Your task to perform on an android device: change the clock style Image 0: 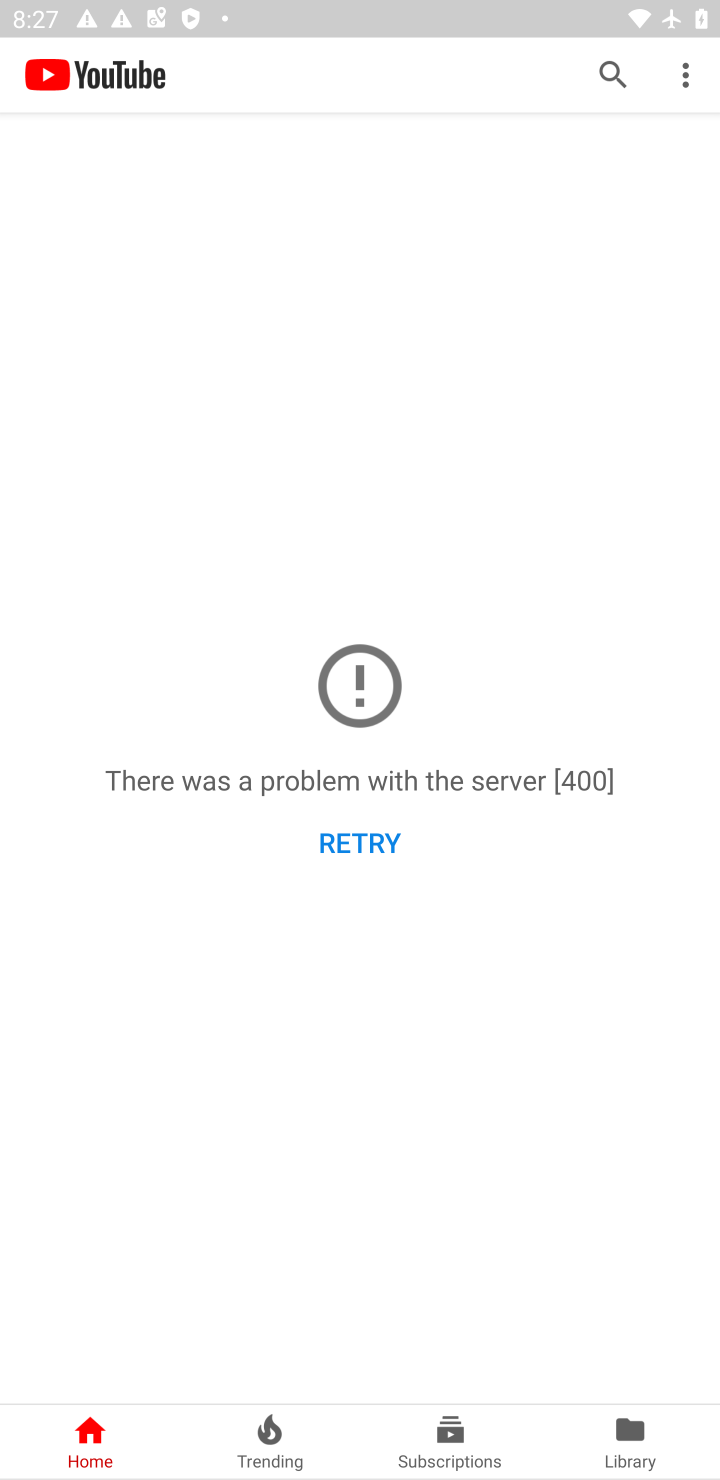
Step 0: press home button
Your task to perform on an android device: change the clock style Image 1: 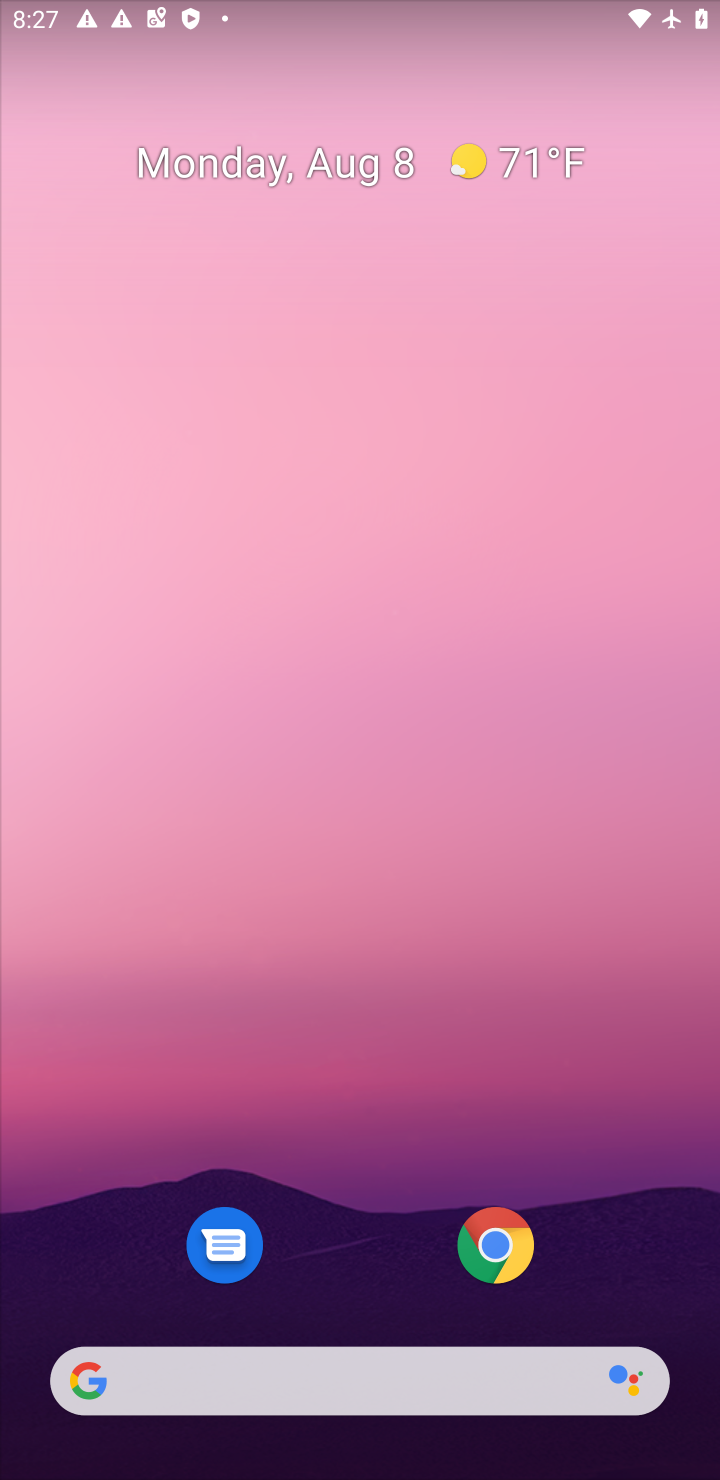
Step 1: drag from (378, 890) to (370, 5)
Your task to perform on an android device: change the clock style Image 2: 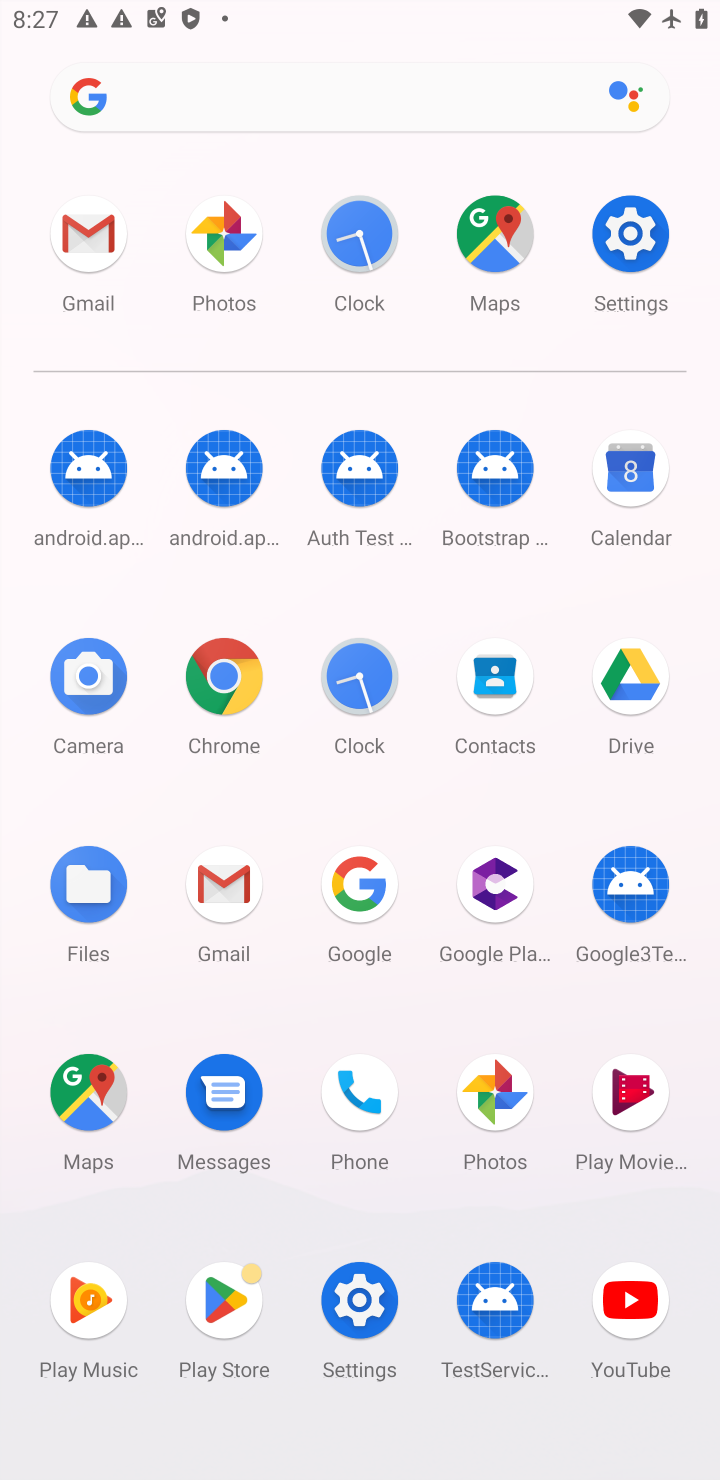
Step 2: click (368, 268)
Your task to perform on an android device: change the clock style Image 3: 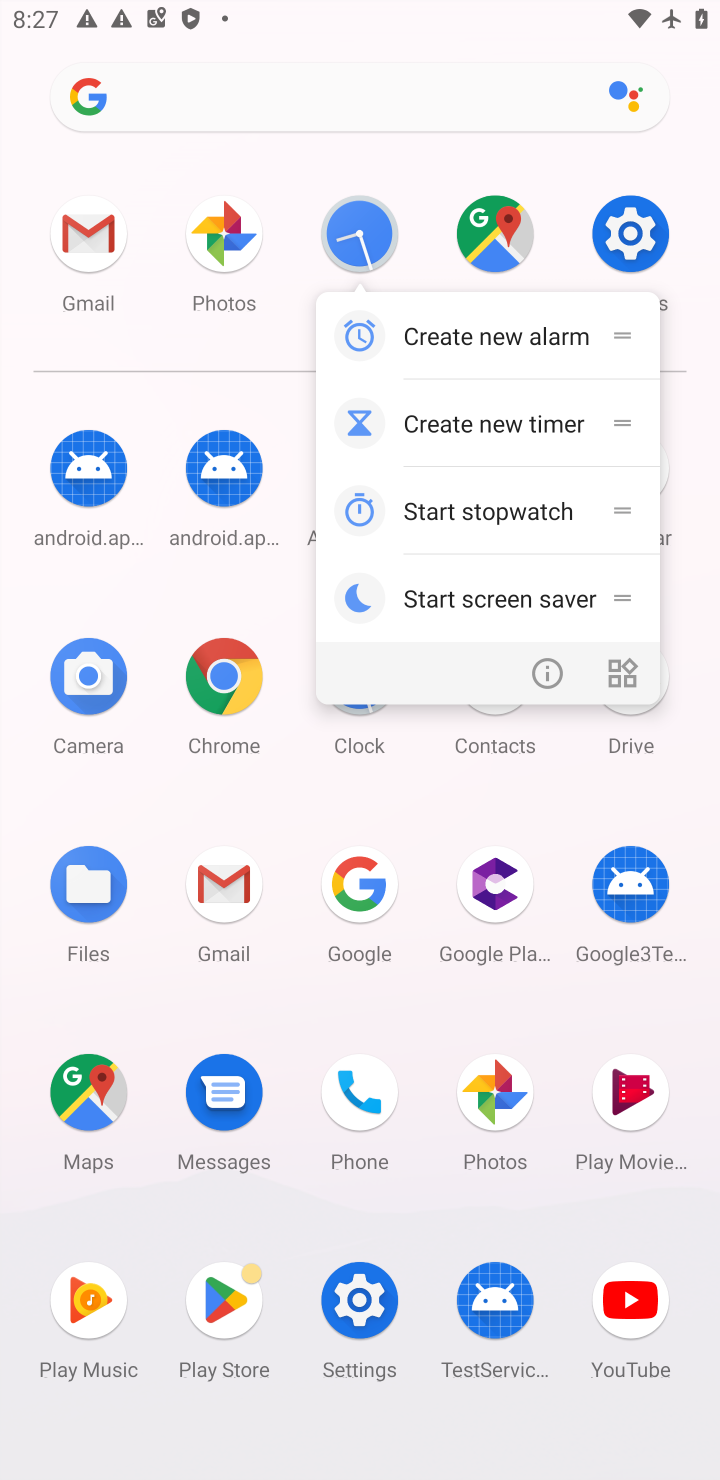
Step 3: click (370, 262)
Your task to perform on an android device: change the clock style Image 4: 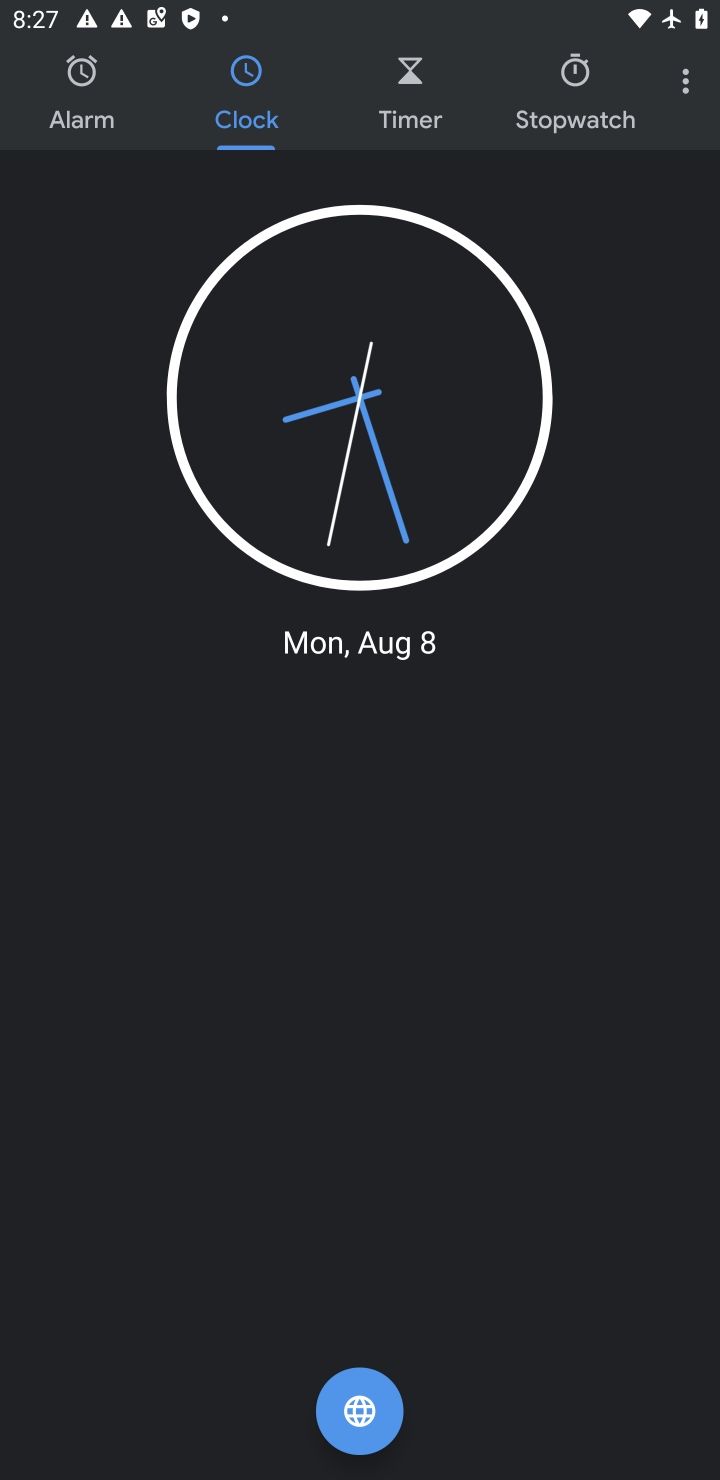
Step 4: click (679, 91)
Your task to perform on an android device: change the clock style Image 5: 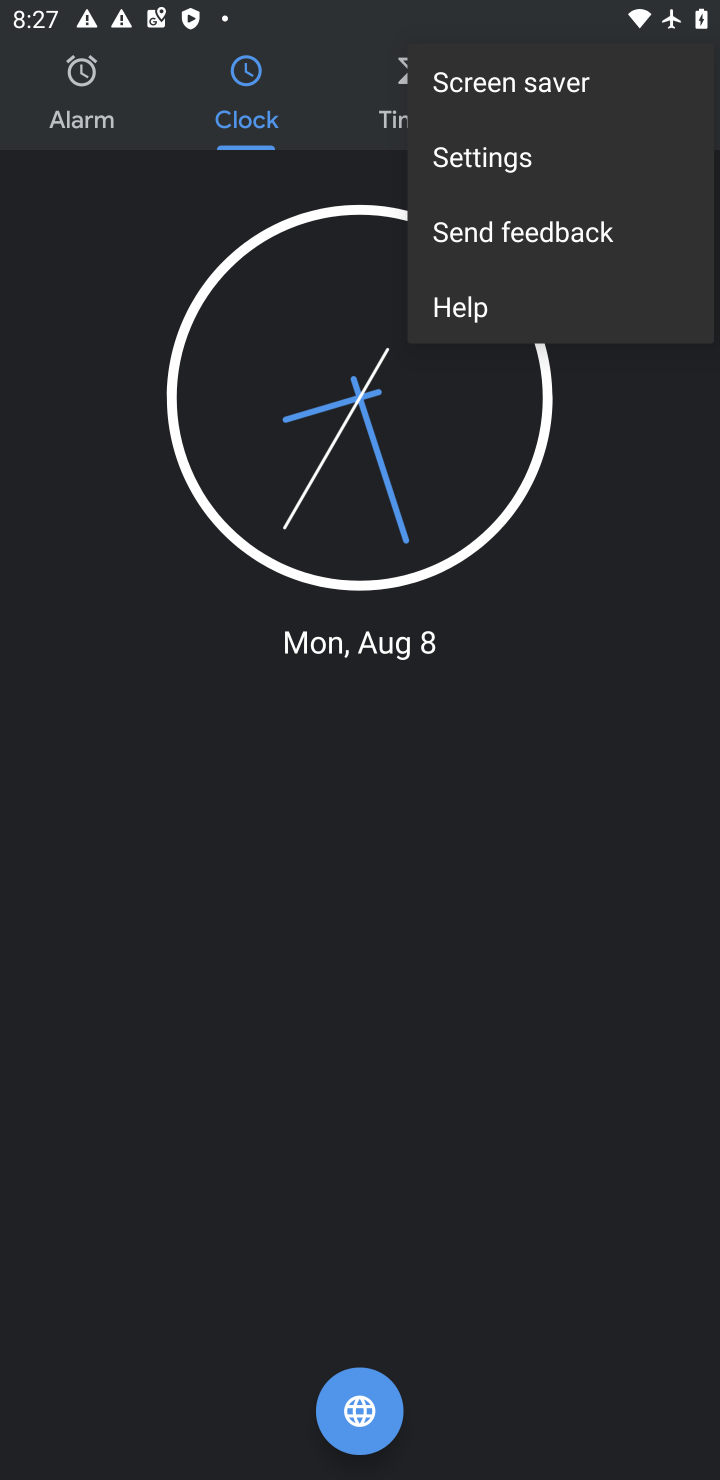
Step 5: click (516, 171)
Your task to perform on an android device: change the clock style Image 6: 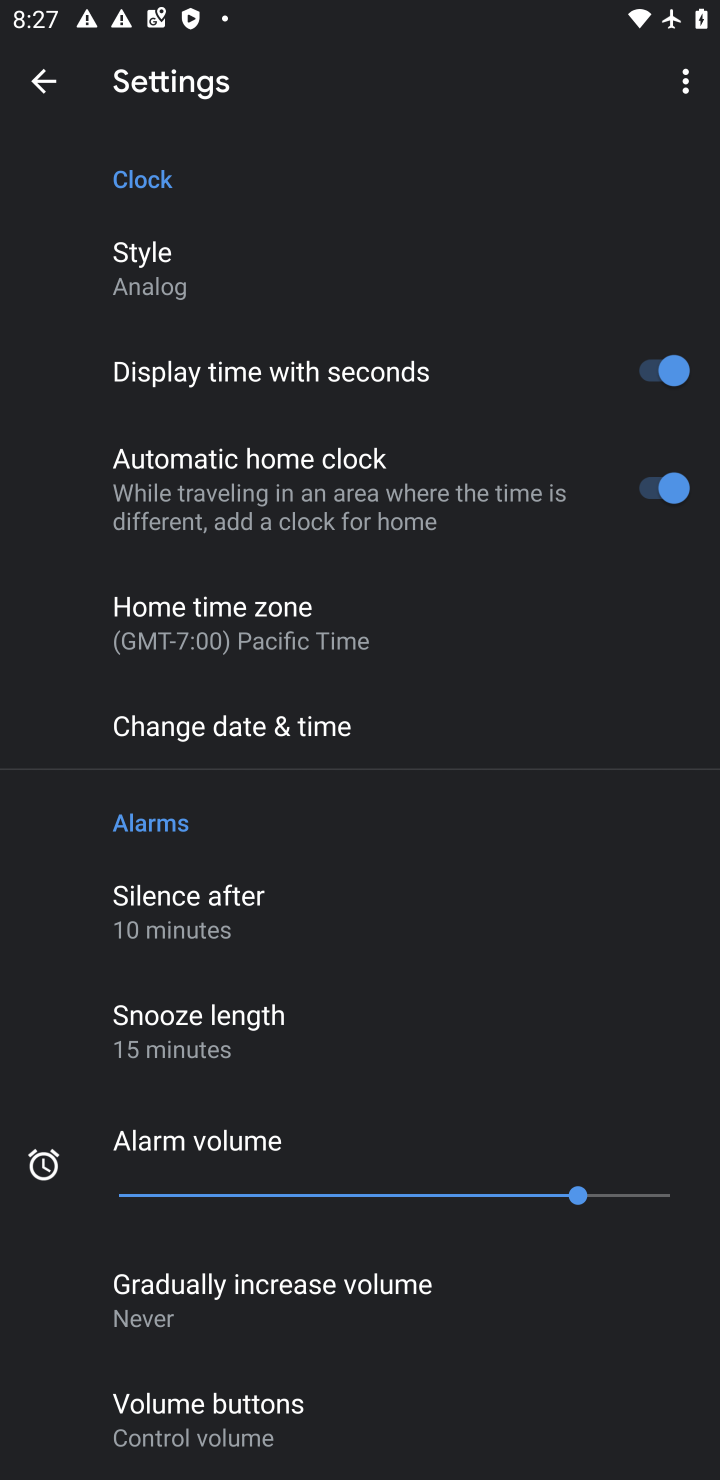
Step 6: click (192, 283)
Your task to perform on an android device: change the clock style Image 7: 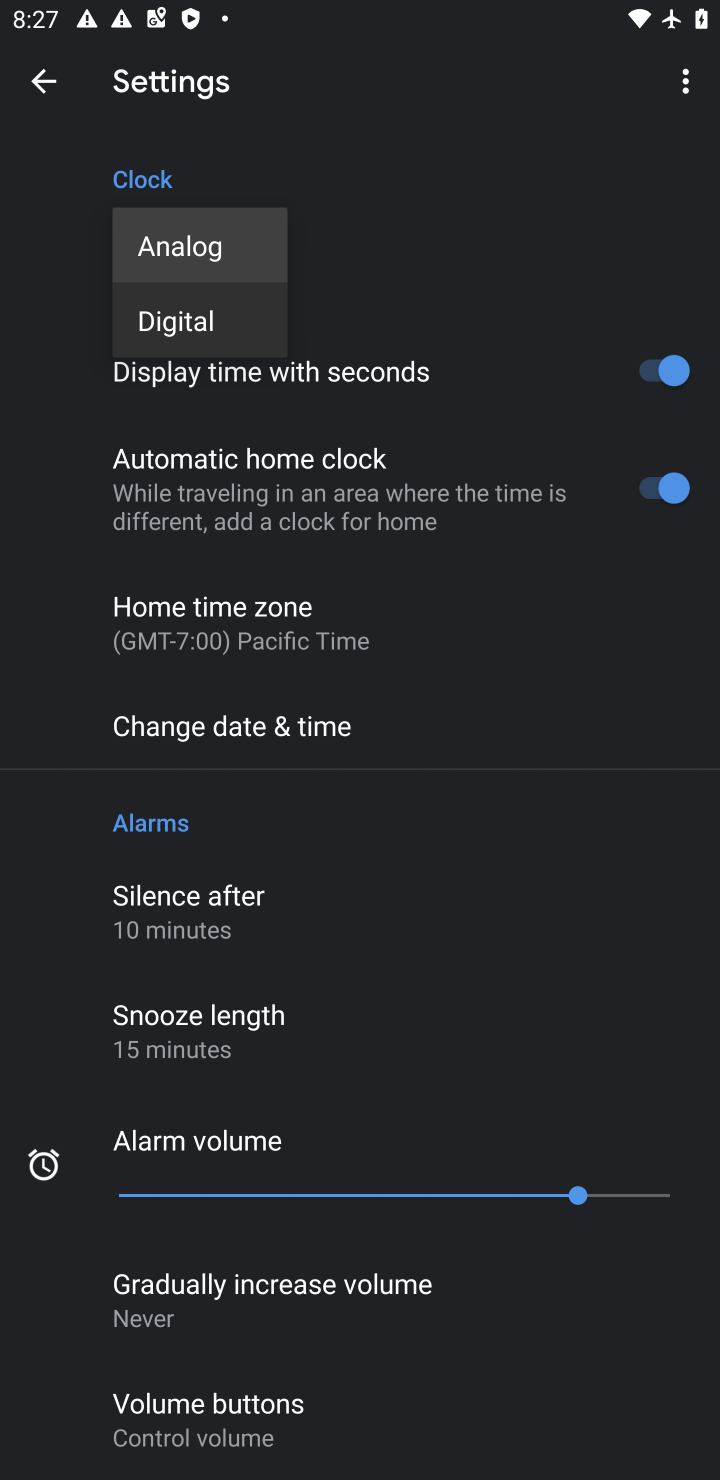
Step 7: click (223, 339)
Your task to perform on an android device: change the clock style Image 8: 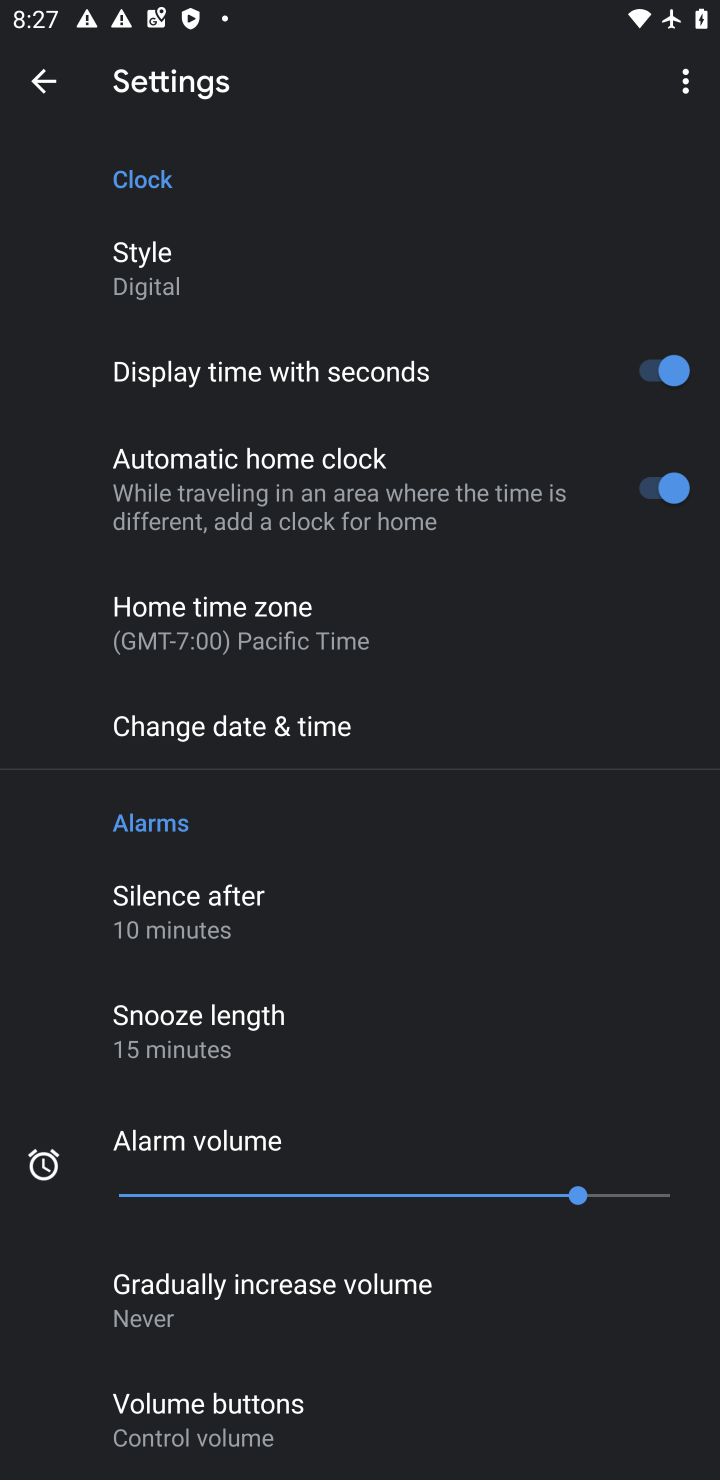
Step 8: task complete